Your task to perform on an android device: Go to calendar. Show me events next week Image 0: 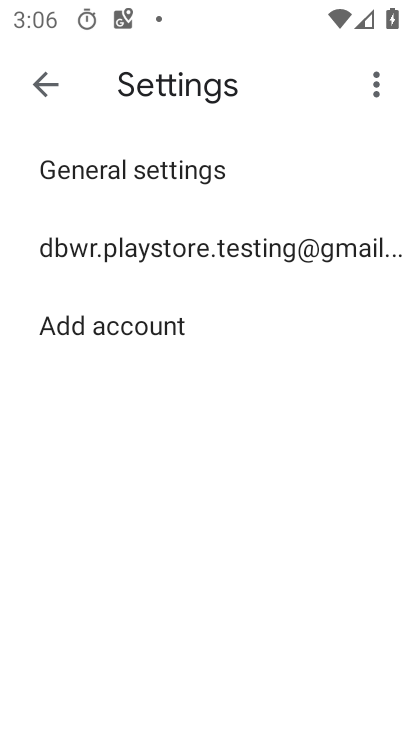
Step 0: press home button
Your task to perform on an android device: Go to calendar. Show me events next week Image 1: 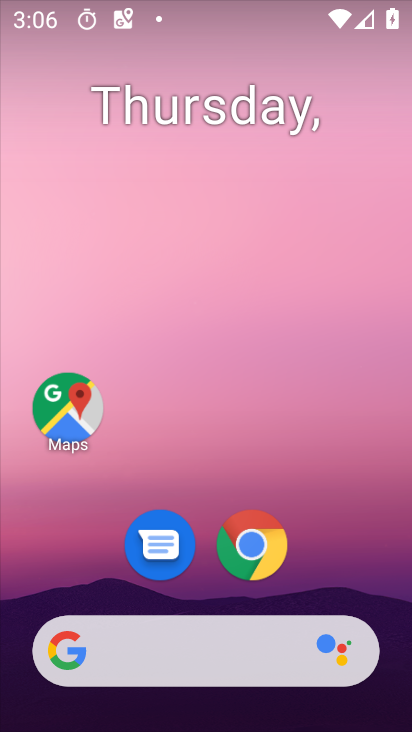
Step 1: drag from (233, 726) to (226, 93)
Your task to perform on an android device: Go to calendar. Show me events next week Image 2: 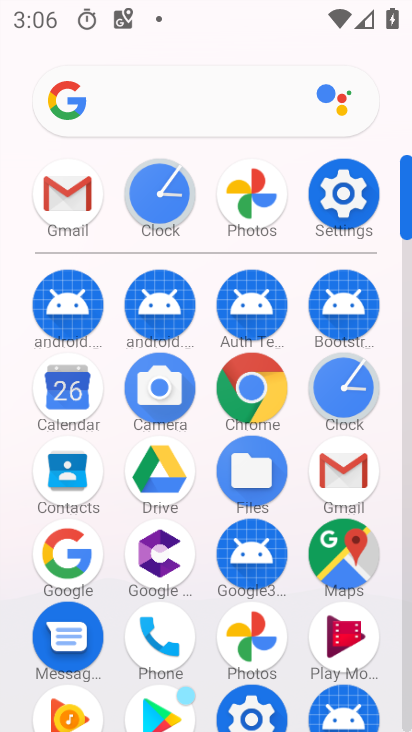
Step 2: click (71, 393)
Your task to perform on an android device: Go to calendar. Show me events next week Image 3: 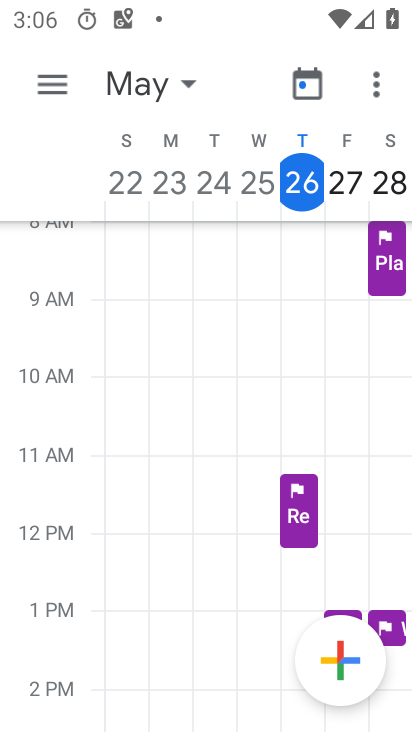
Step 3: click (188, 79)
Your task to perform on an android device: Go to calendar. Show me events next week Image 4: 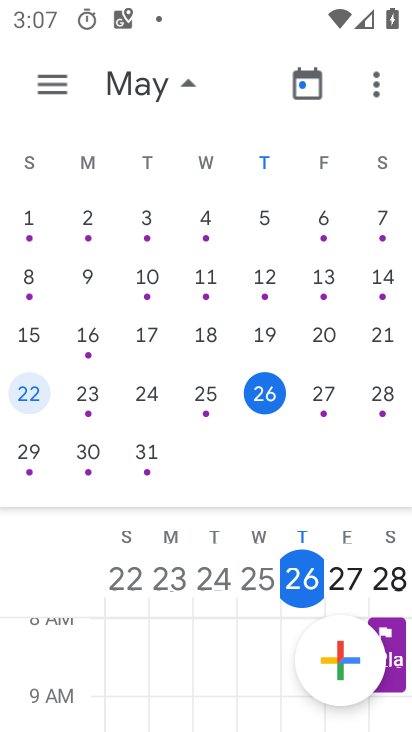
Step 4: click (87, 439)
Your task to perform on an android device: Go to calendar. Show me events next week Image 5: 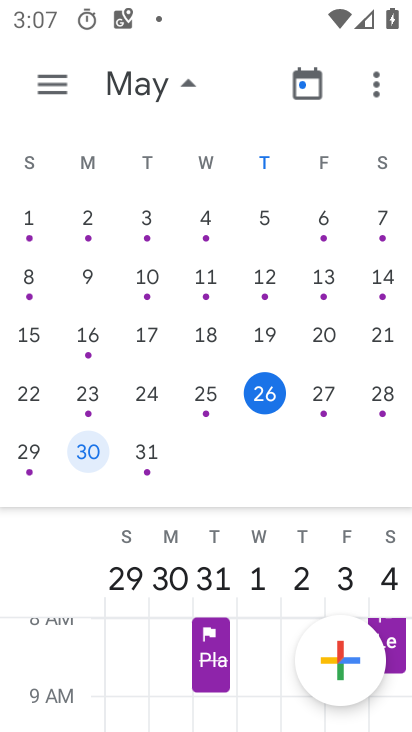
Step 5: click (182, 79)
Your task to perform on an android device: Go to calendar. Show me events next week Image 6: 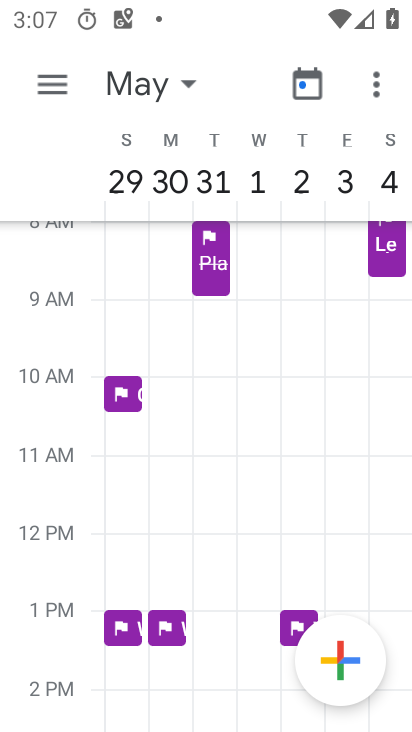
Step 6: task complete